Your task to perform on an android device: stop showing notifications on the lock screen Image 0: 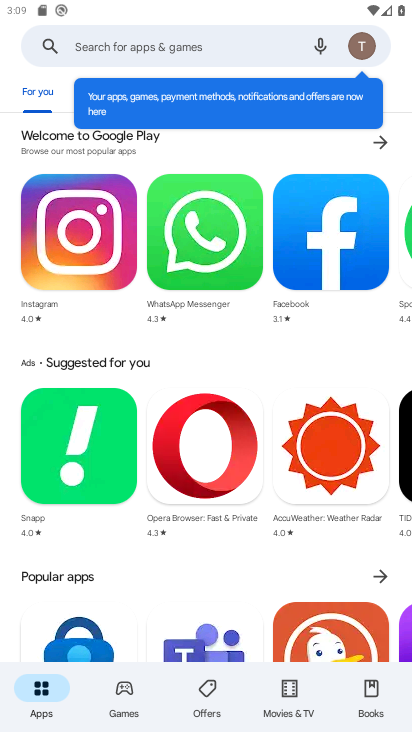
Step 0: press back button
Your task to perform on an android device: stop showing notifications on the lock screen Image 1: 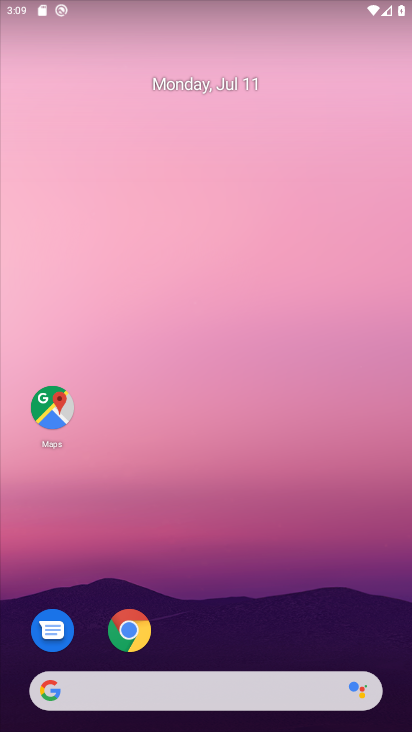
Step 1: drag from (215, 634) to (196, 138)
Your task to perform on an android device: stop showing notifications on the lock screen Image 2: 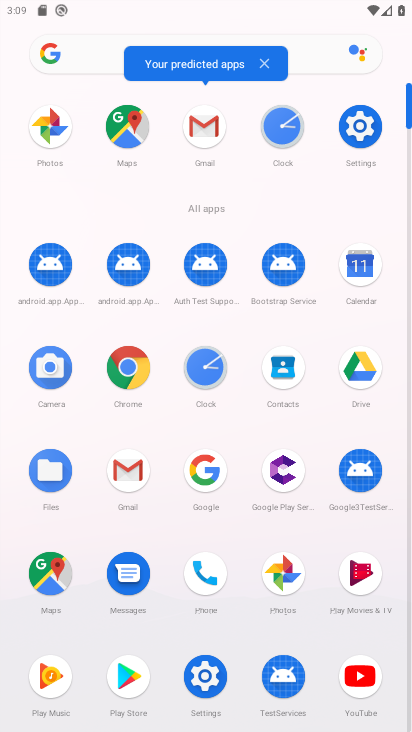
Step 2: click (361, 129)
Your task to perform on an android device: stop showing notifications on the lock screen Image 3: 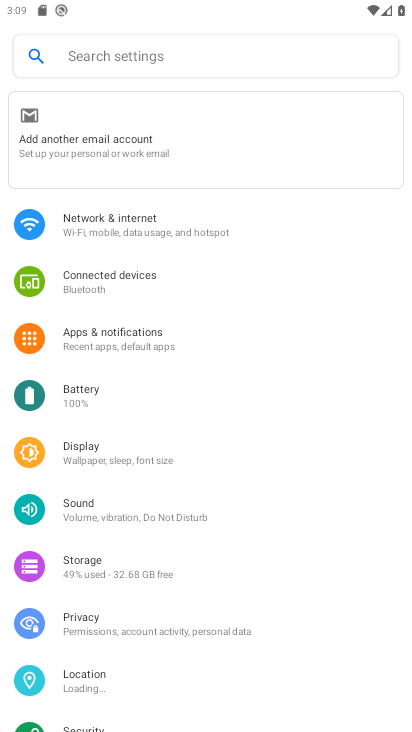
Step 3: click (152, 351)
Your task to perform on an android device: stop showing notifications on the lock screen Image 4: 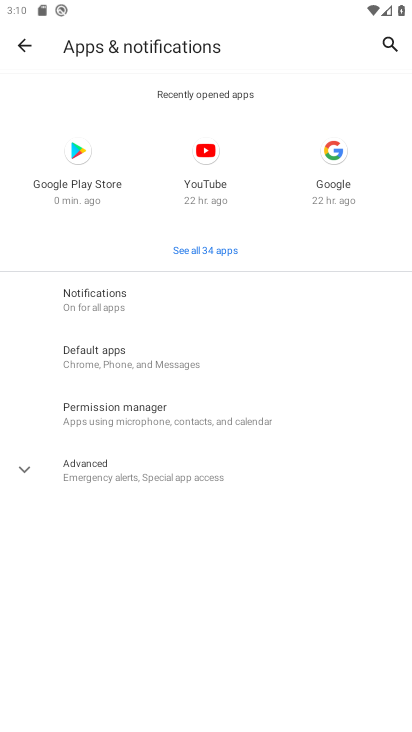
Step 4: click (147, 306)
Your task to perform on an android device: stop showing notifications on the lock screen Image 5: 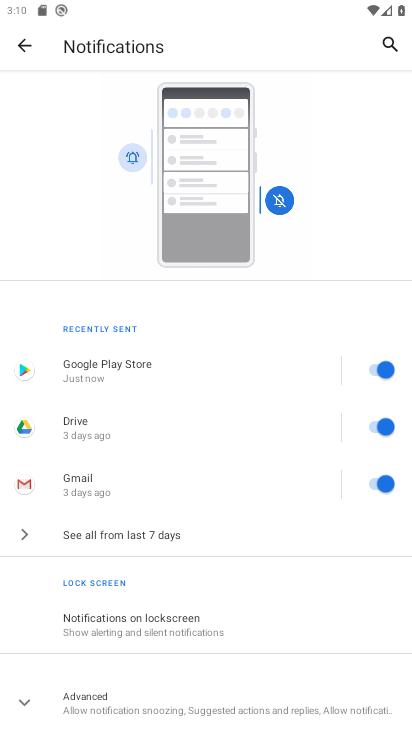
Step 5: click (17, 535)
Your task to perform on an android device: stop showing notifications on the lock screen Image 6: 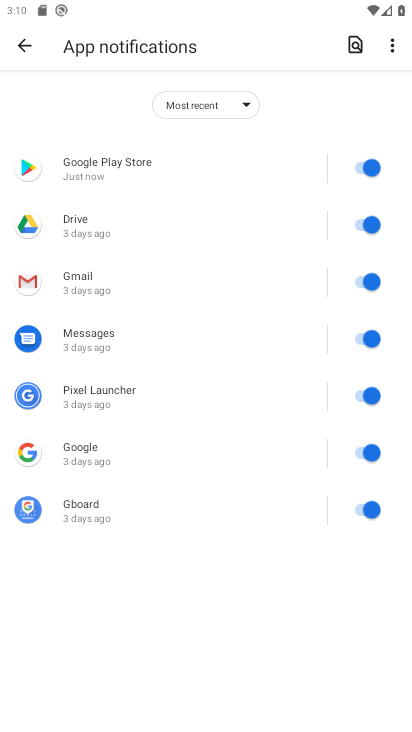
Step 6: click (23, 60)
Your task to perform on an android device: stop showing notifications on the lock screen Image 7: 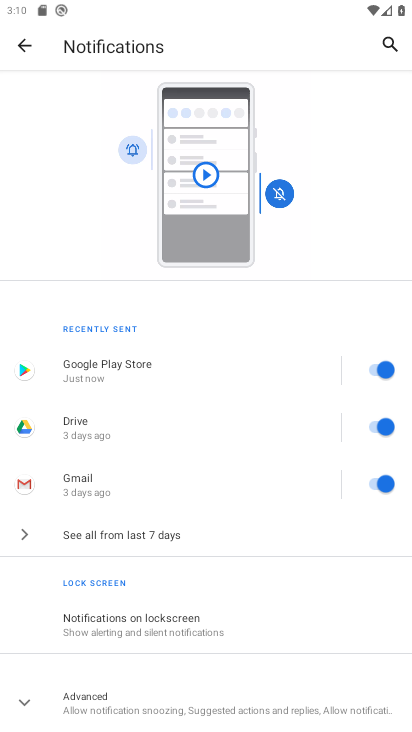
Step 7: click (208, 716)
Your task to perform on an android device: stop showing notifications on the lock screen Image 8: 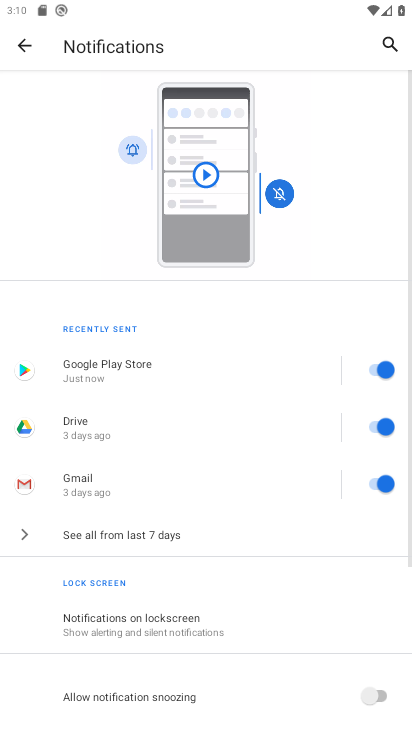
Step 8: drag from (266, 661) to (261, 410)
Your task to perform on an android device: stop showing notifications on the lock screen Image 9: 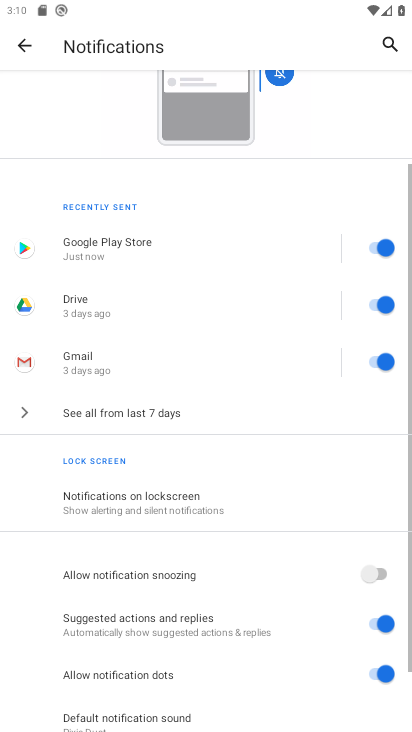
Step 9: click (261, 410)
Your task to perform on an android device: stop showing notifications on the lock screen Image 10: 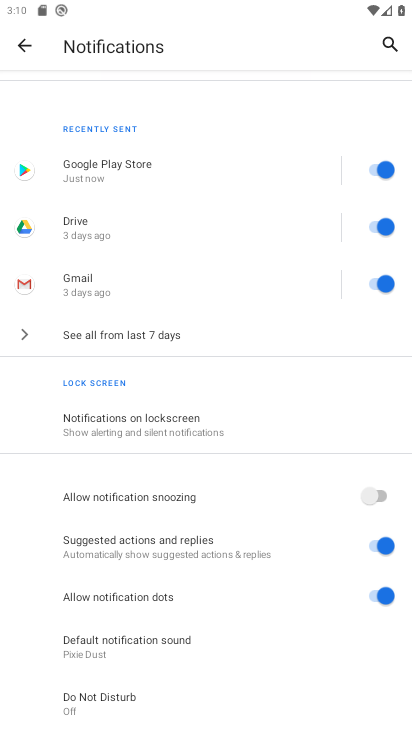
Step 10: click (153, 397)
Your task to perform on an android device: stop showing notifications on the lock screen Image 11: 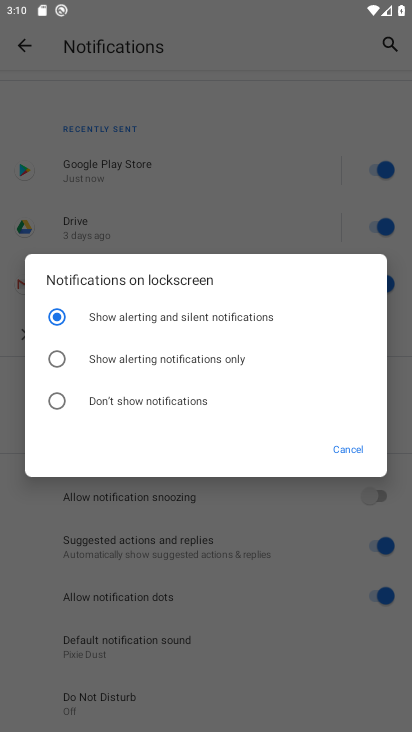
Step 11: click (166, 374)
Your task to perform on an android device: stop showing notifications on the lock screen Image 12: 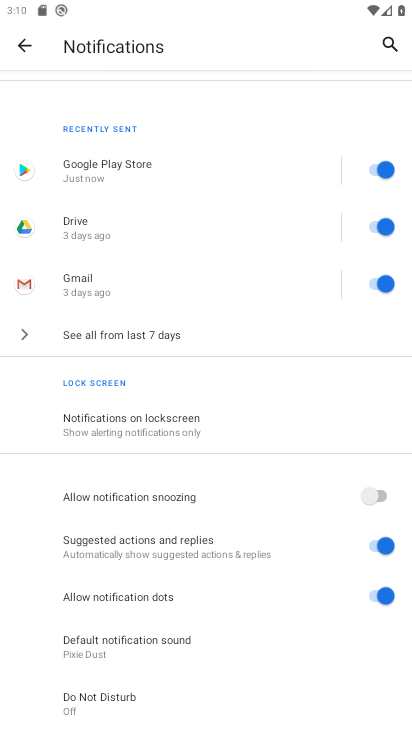
Step 12: task complete